Your task to perform on an android device: check android version Image 0: 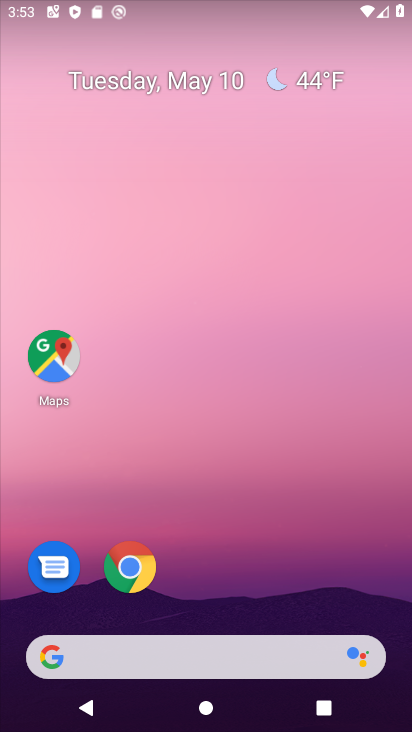
Step 0: drag from (267, 575) to (219, 150)
Your task to perform on an android device: check android version Image 1: 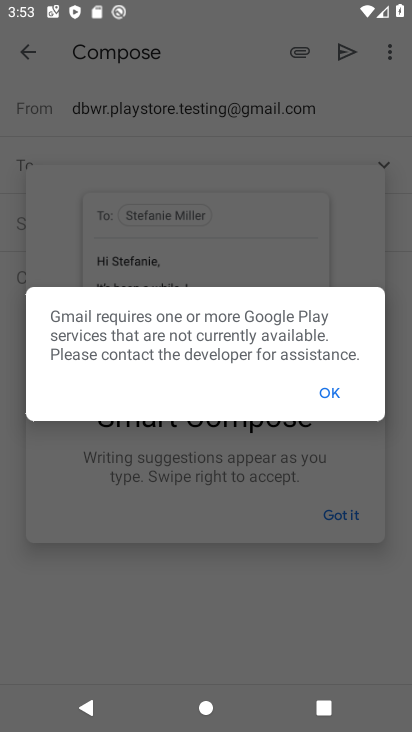
Step 1: press home button
Your task to perform on an android device: check android version Image 2: 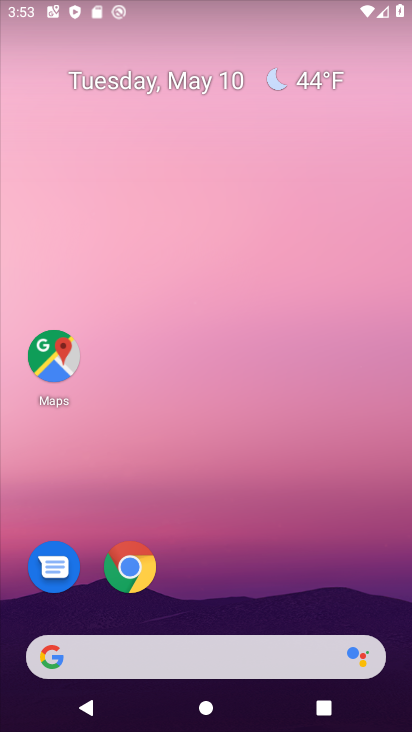
Step 2: drag from (199, 589) to (200, 88)
Your task to perform on an android device: check android version Image 3: 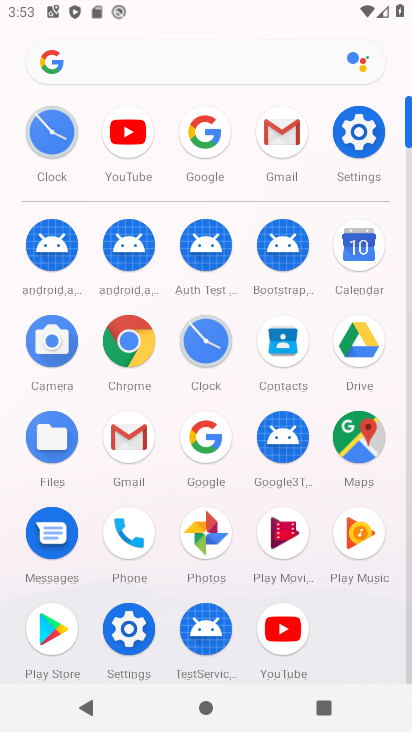
Step 3: click (357, 133)
Your task to perform on an android device: check android version Image 4: 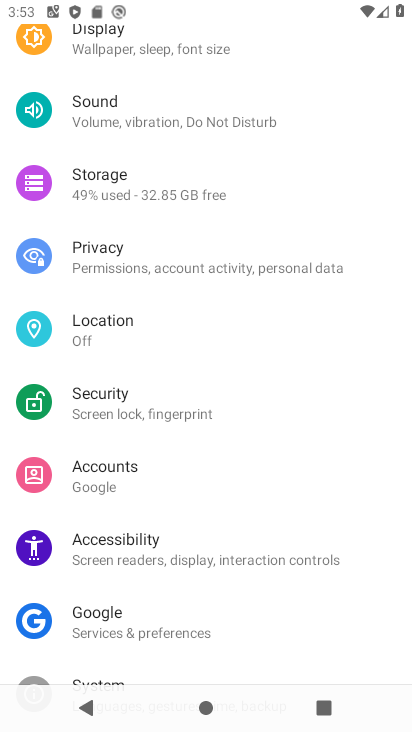
Step 4: drag from (134, 638) to (229, 272)
Your task to perform on an android device: check android version Image 5: 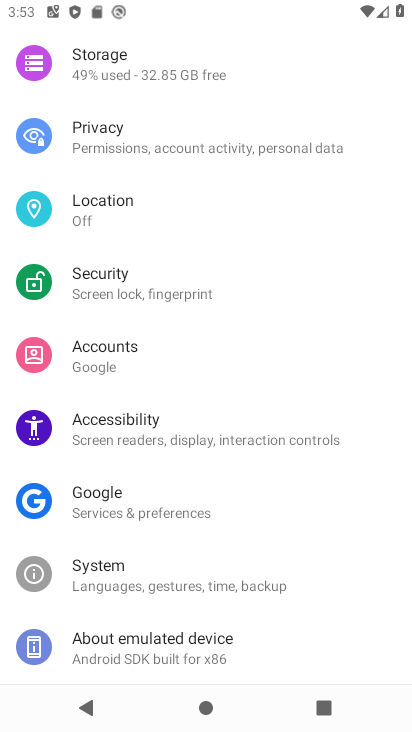
Step 5: click (133, 641)
Your task to perform on an android device: check android version Image 6: 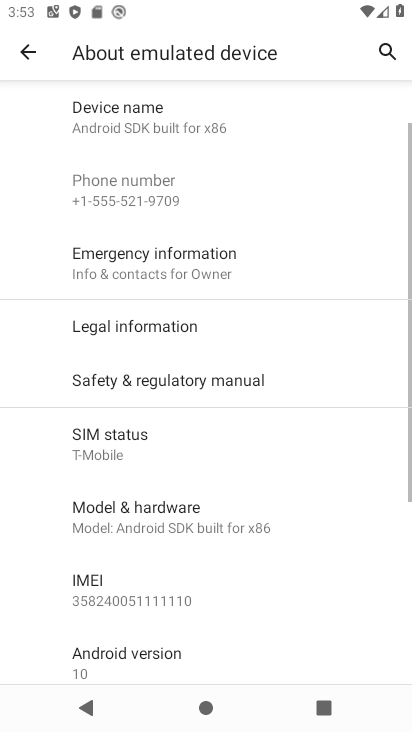
Step 6: drag from (158, 566) to (223, 330)
Your task to perform on an android device: check android version Image 7: 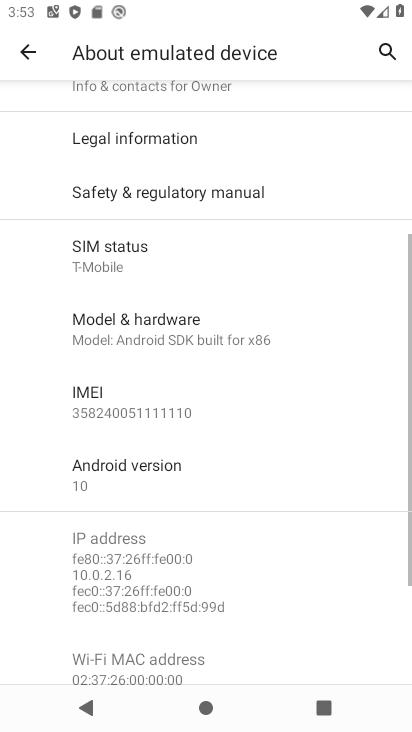
Step 7: click (139, 465)
Your task to perform on an android device: check android version Image 8: 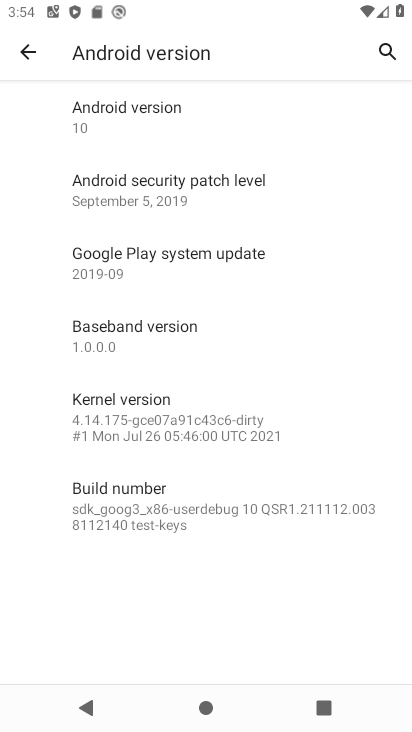
Step 8: task complete